Your task to perform on an android device: manage bookmarks in the chrome app Image 0: 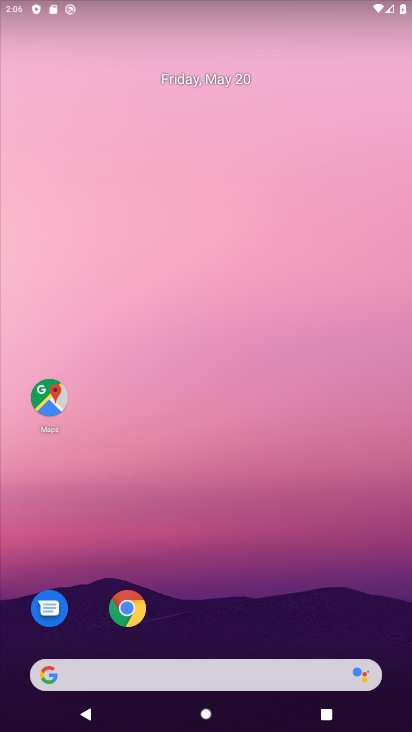
Step 0: click (342, 9)
Your task to perform on an android device: manage bookmarks in the chrome app Image 1: 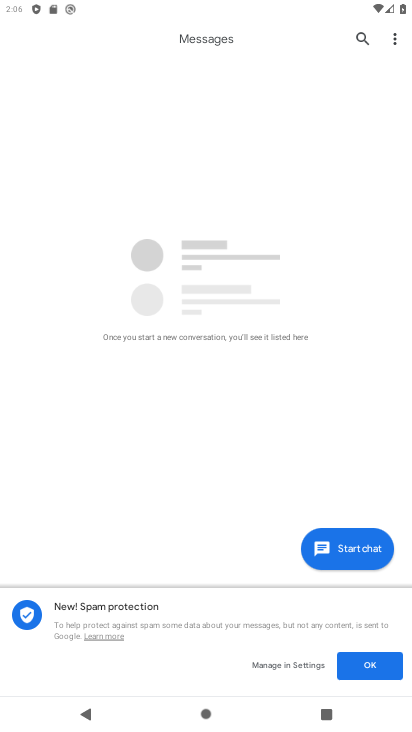
Step 1: press back button
Your task to perform on an android device: manage bookmarks in the chrome app Image 2: 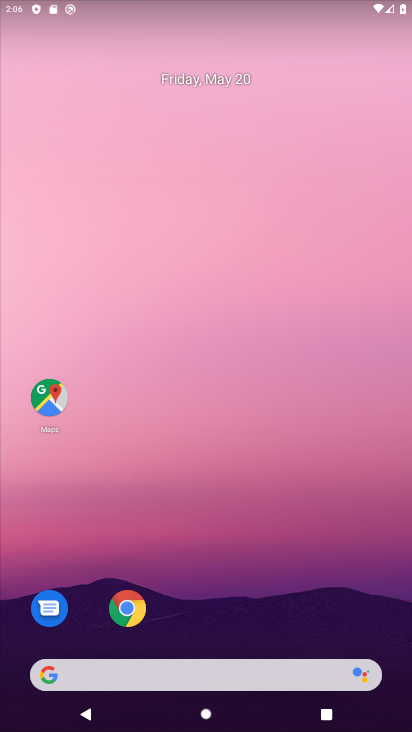
Step 2: click (123, 601)
Your task to perform on an android device: manage bookmarks in the chrome app Image 3: 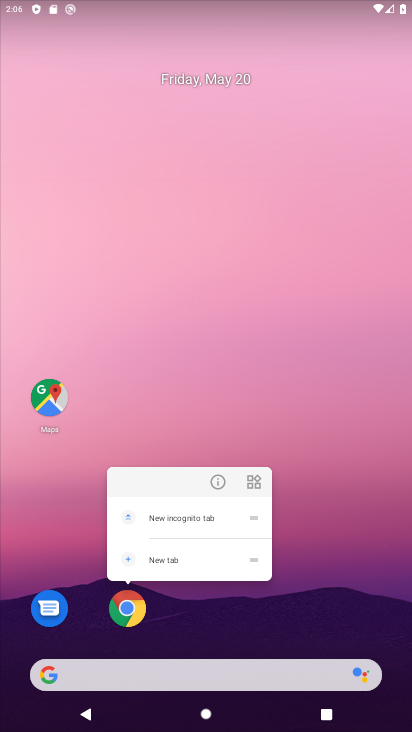
Step 3: click (132, 597)
Your task to perform on an android device: manage bookmarks in the chrome app Image 4: 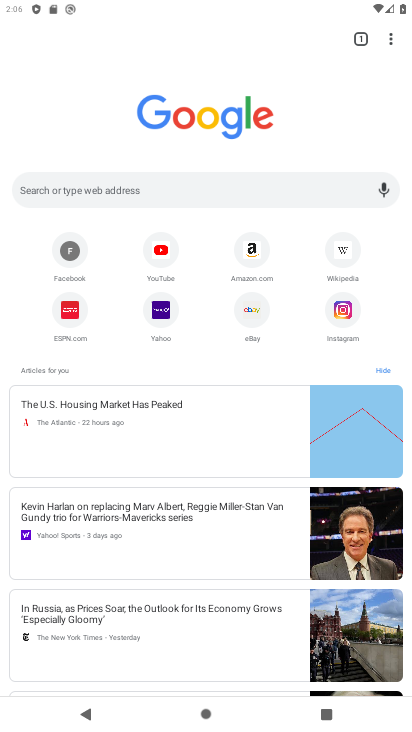
Step 4: task complete